Your task to perform on an android device: turn on javascript in the chrome app Image 0: 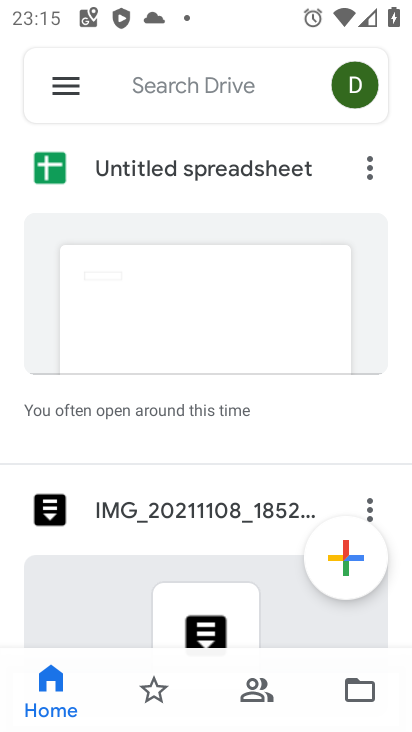
Step 0: press home button
Your task to perform on an android device: turn on javascript in the chrome app Image 1: 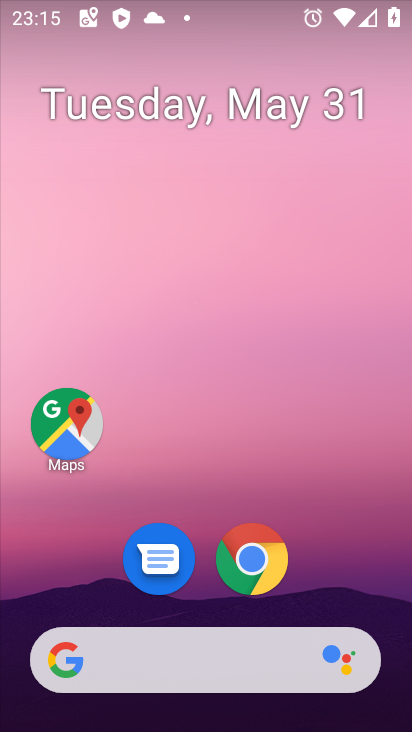
Step 1: click (256, 558)
Your task to perform on an android device: turn on javascript in the chrome app Image 2: 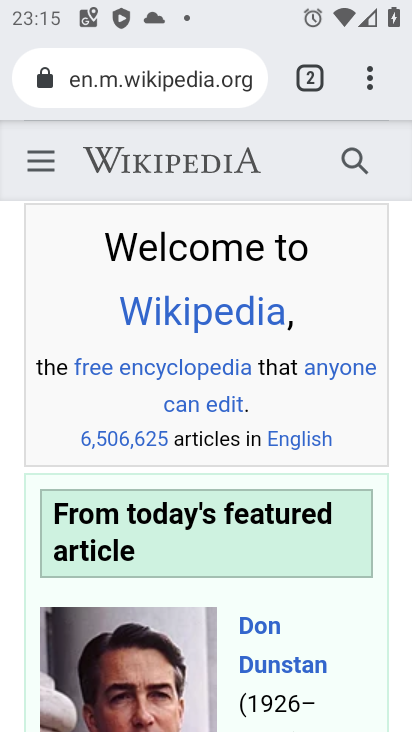
Step 2: click (360, 78)
Your task to perform on an android device: turn on javascript in the chrome app Image 3: 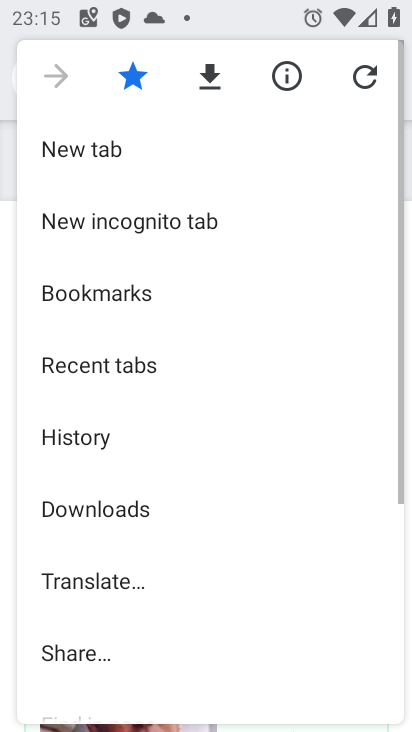
Step 3: drag from (192, 659) to (143, 159)
Your task to perform on an android device: turn on javascript in the chrome app Image 4: 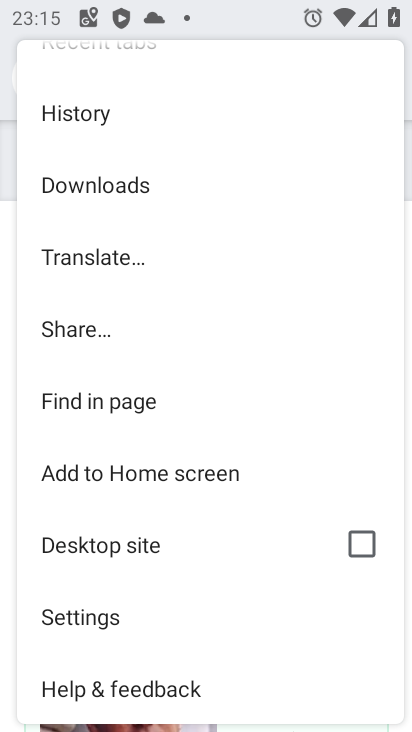
Step 4: click (91, 627)
Your task to perform on an android device: turn on javascript in the chrome app Image 5: 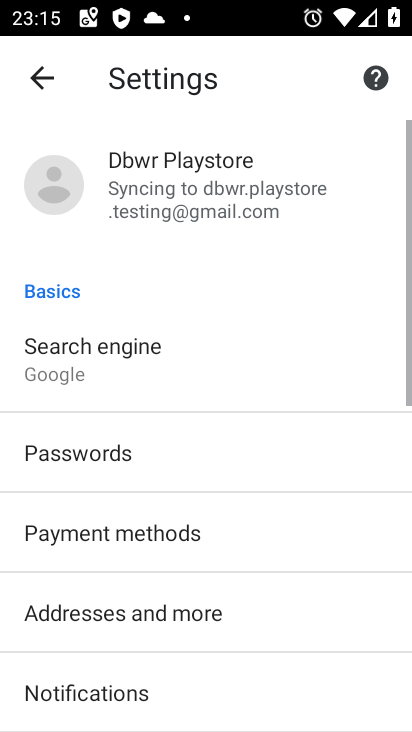
Step 5: drag from (230, 590) to (209, 200)
Your task to perform on an android device: turn on javascript in the chrome app Image 6: 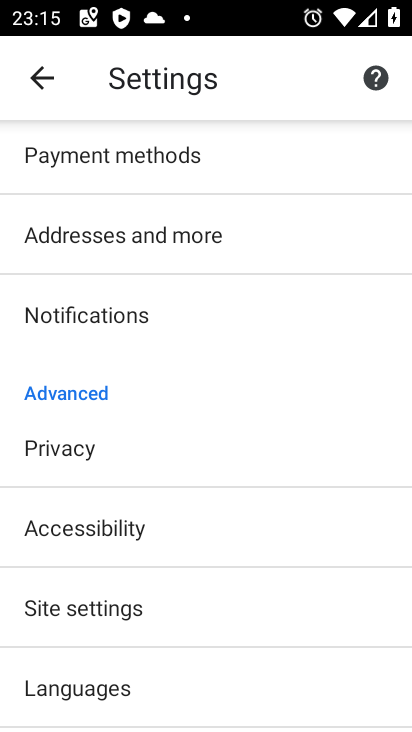
Step 6: click (84, 605)
Your task to perform on an android device: turn on javascript in the chrome app Image 7: 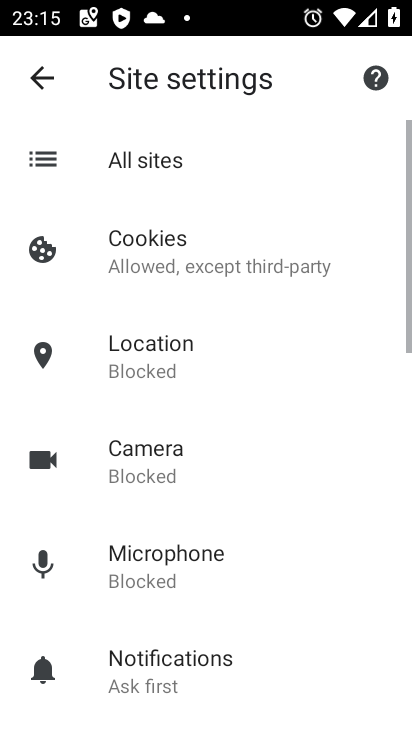
Step 7: drag from (208, 645) to (213, 243)
Your task to perform on an android device: turn on javascript in the chrome app Image 8: 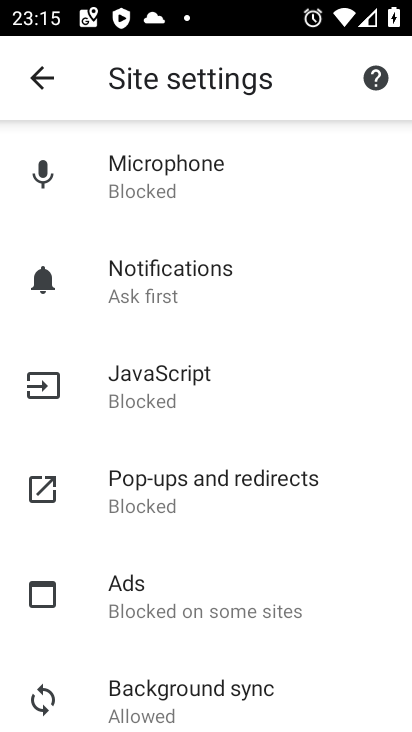
Step 8: click (176, 364)
Your task to perform on an android device: turn on javascript in the chrome app Image 9: 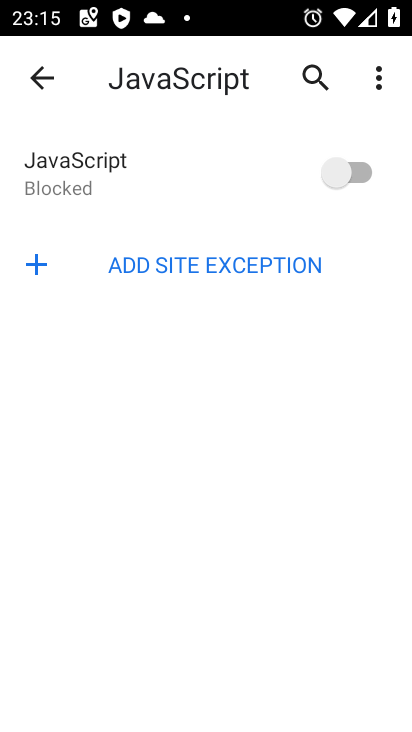
Step 9: click (337, 174)
Your task to perform on an android device: turn on javascript in the chrome app Image 10: 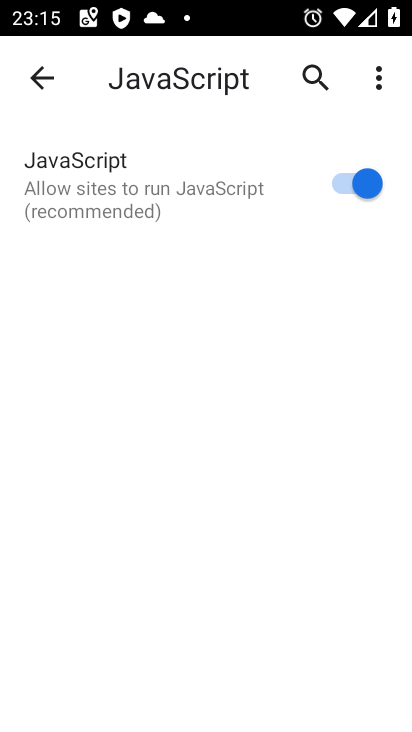
Step 10: task complete